Your task to perform on an android device: turn on wifi Image 0: 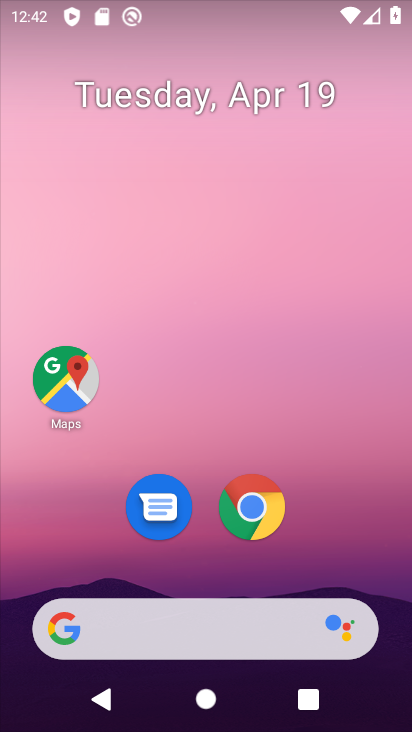
Step 0: drag from (204, 564) to (212, 148)
Your task to perform on an android device: turn on wifi Image 1: 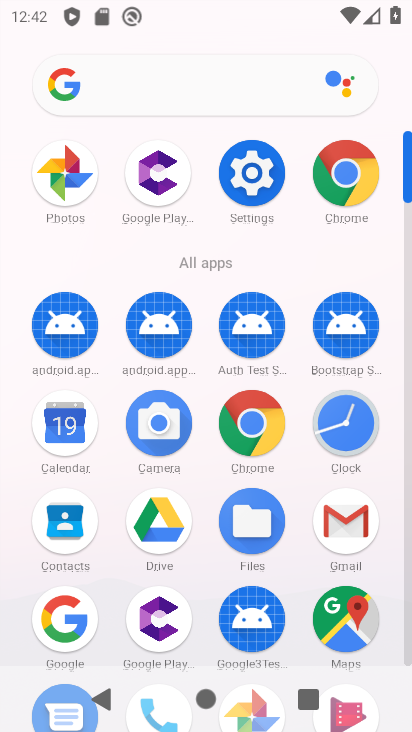
Step 1: click (249, 165)
Your task to perform on an android device: turn on wifi Image 2: 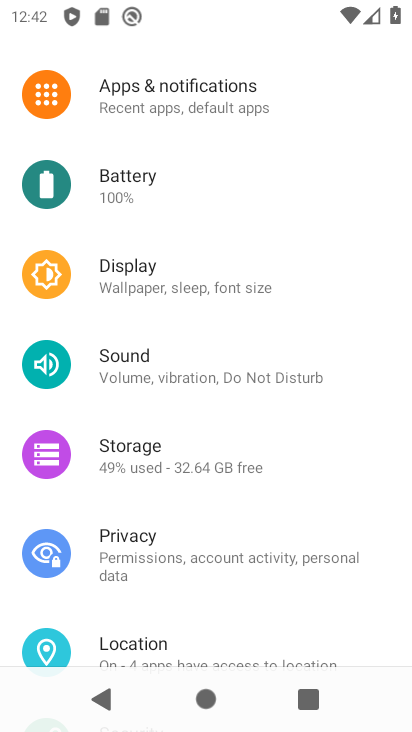
Step 2: drag from (163, 139) to (195, 672)
Your task to perform on an android device: turn on wifi Image 3: 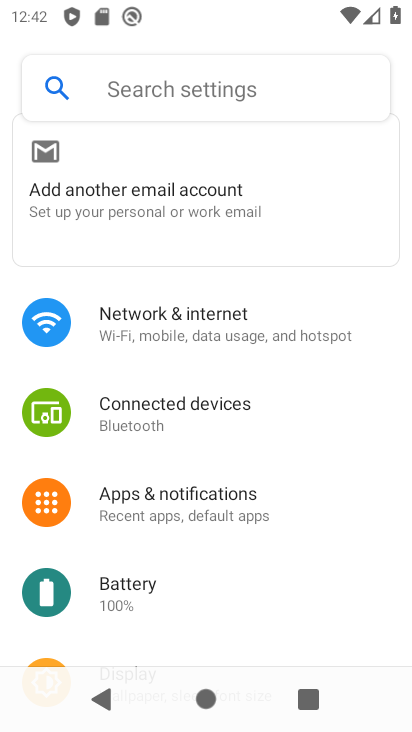
Step 3: click (82, 323)
Your task to perform on an android device: turn on wifi Image 4: 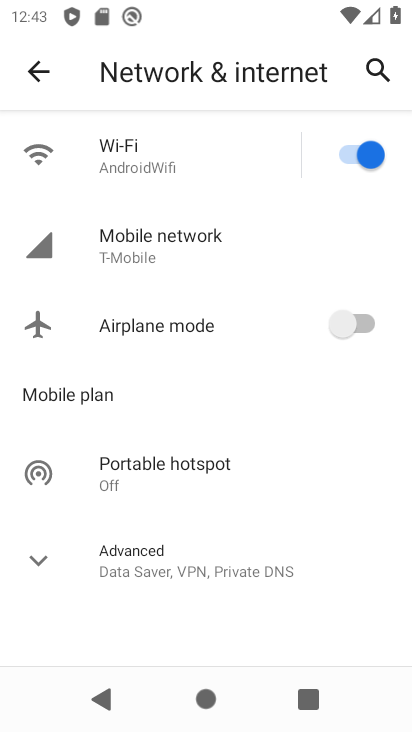
Step 4: task complete